Your task to perform on an android device: Open Maps and search for coffee Image 0: 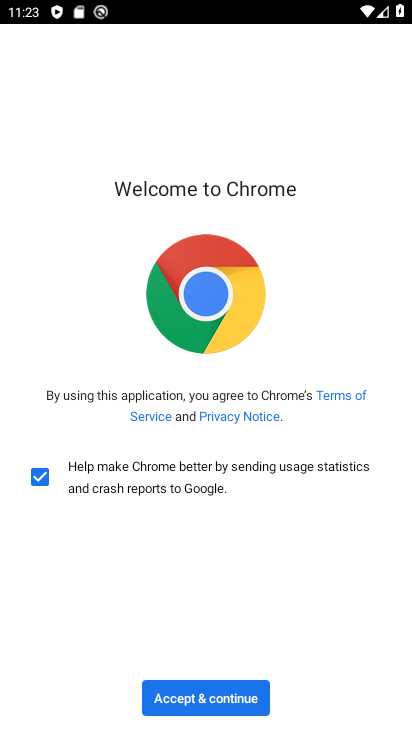
Step 0: press home button
Your task to perform on an android device: Open Maps and search for coffee Image 1: 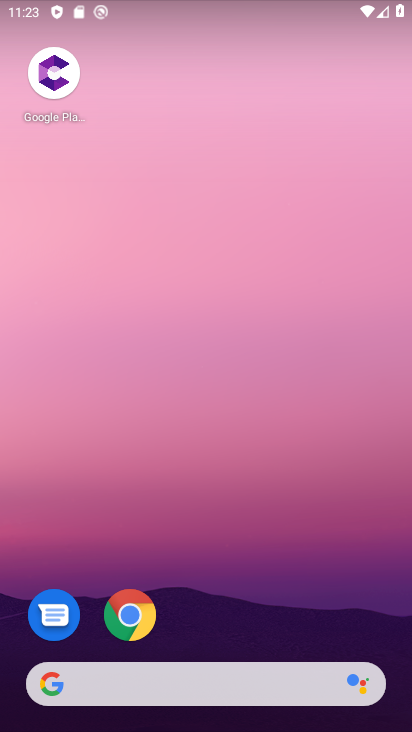
Step 1: drag from (254, 583) to (238, 58)
Your task to perform on an android device: Open Maps and search for coffee Image 2: 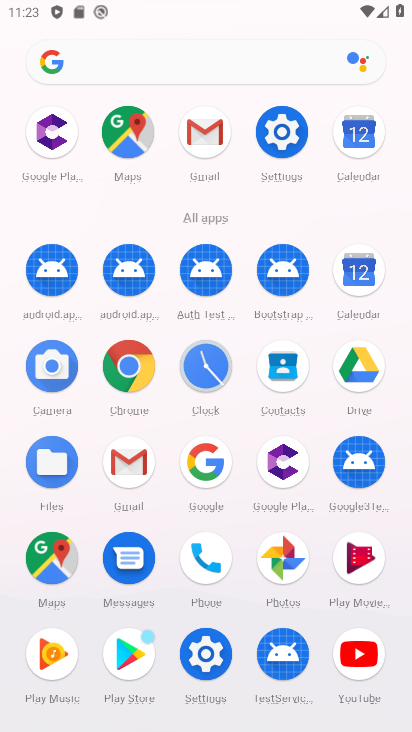
Step 2: click (131, 123)
Your task to perform on an android device: Open Maps and search for coffee Image 3: 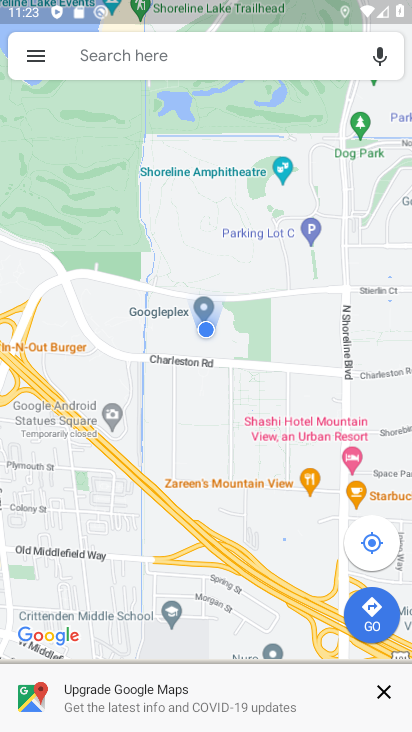
Step 3: click (150, 45)
Your task to perform on an android device: Open Maps and search for coffee Image 4: 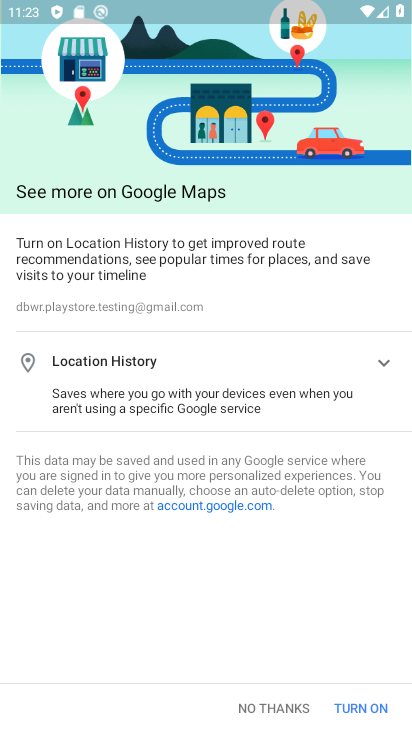
Step 4: click (287, 701)
Your task to perform on an android device: Open Maps and search for coffee Image 5: 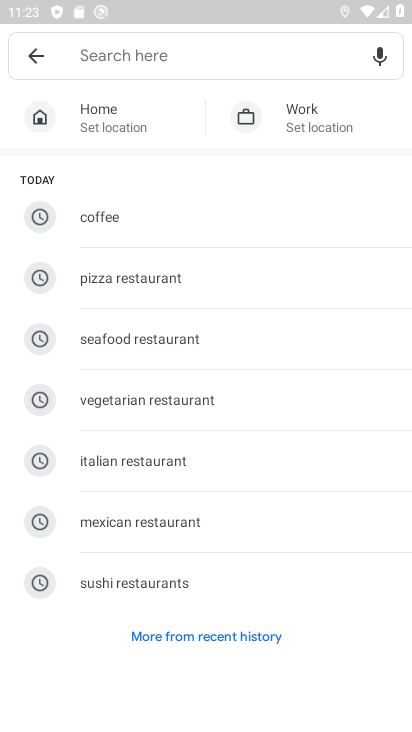
Step 5: click (103, 206)
Your task to perform on an android device: Open Maps and search for coffee Image 6: 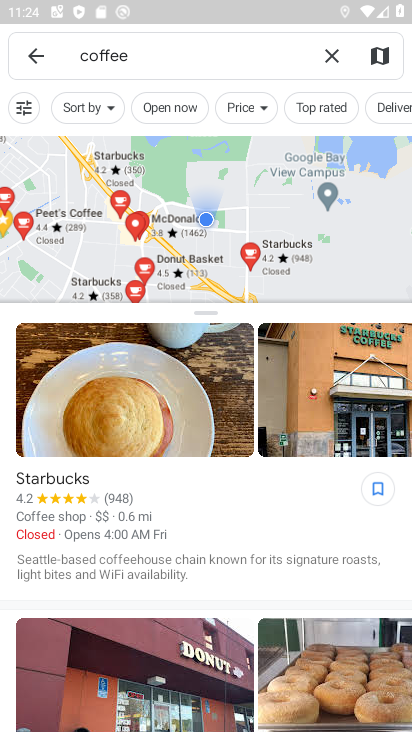
Step 6: task complete